Your task to perform on an android device: Open Chrome and go to the settings page Image 0: 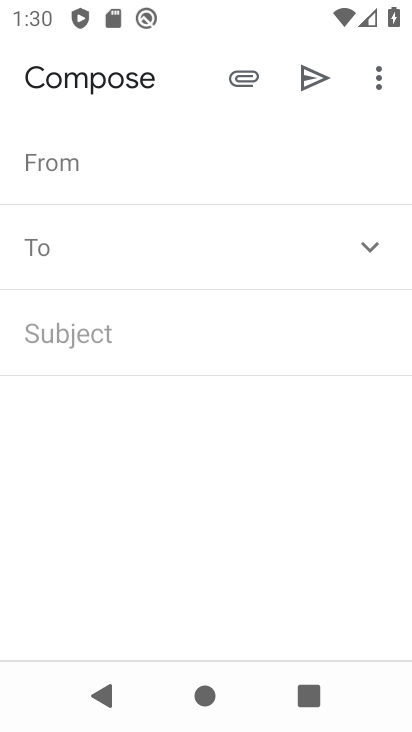
Step 0: drag from (289, 351) to (268, 17)
Your task to perform on an android device: Open Chrome and go to the settings page Image 1: 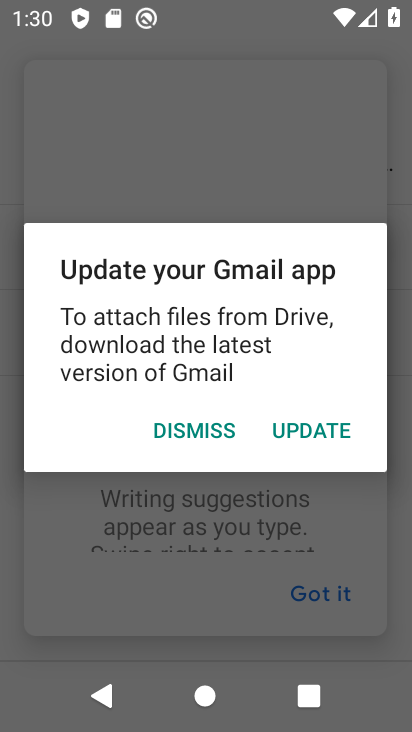
Step 1: press home button
Your task to perform on an android device: Open Chrome and go to the settings page Image 2: 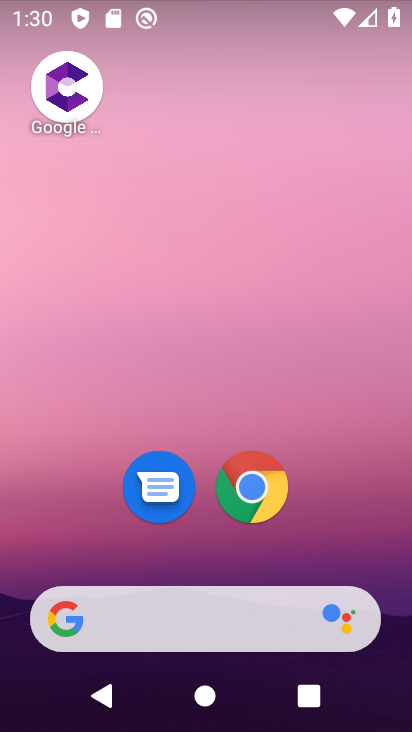
Step 2: click (274, 504)
Your task to perform on an android device: Open Chrome and go to the settings page Image 3: 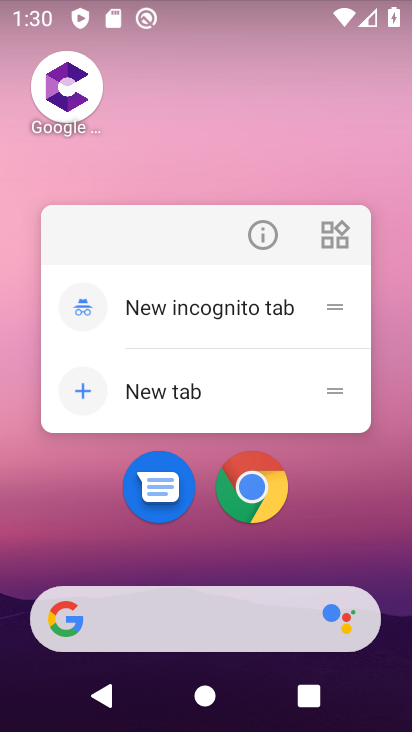
Step 3: click (274, 503)
Your task to perform on an android device: Open Chrome and go to the settings page Image 4: 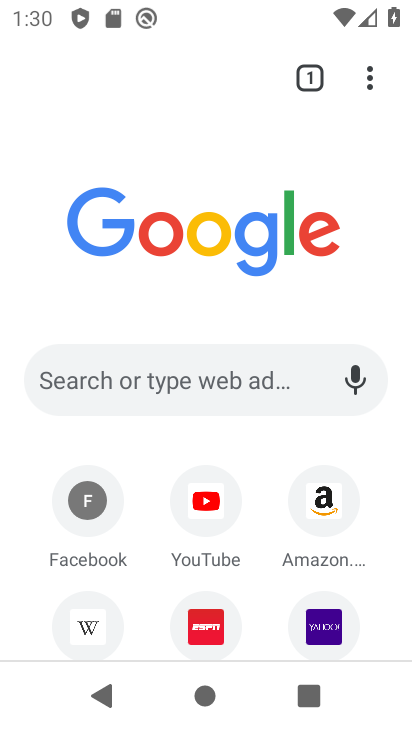
Step 4: task complete